Your task to perform on an android device: Is it going to rain today? Image 0: 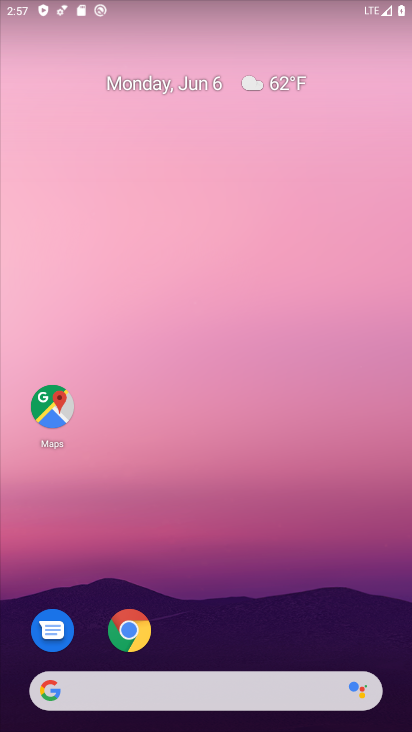
Step 0: press home button
Your task to perform on an android device: Is it going to rain today? Image 1: 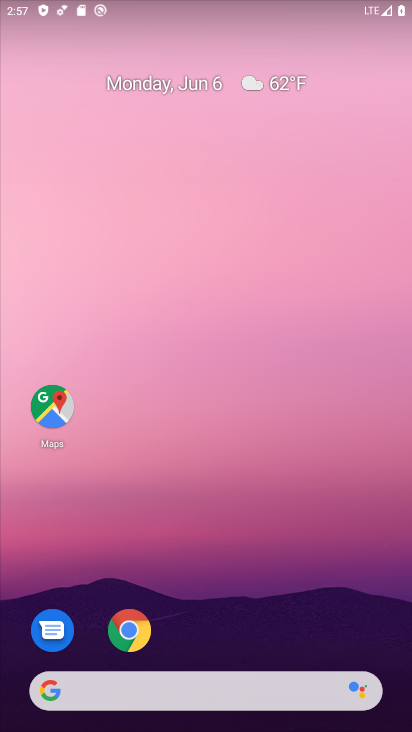
Step 1: click (137, 628)
Your task to perform on an android device: Is it going to rain today? Image 2: 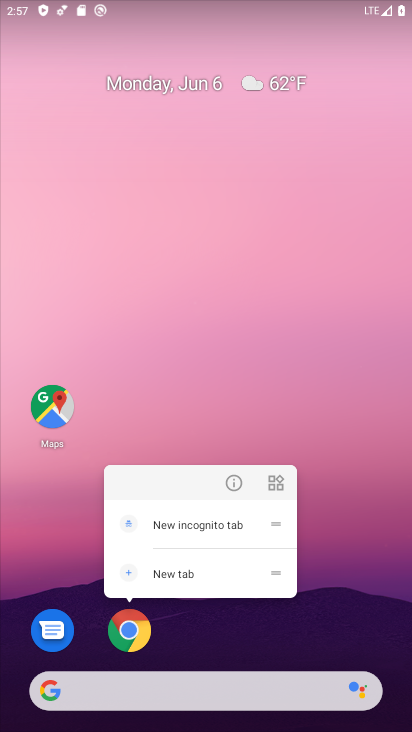
Step 2: click (116, 620)
Your task to perform on an android device: Is it going to rain today? Image 3: 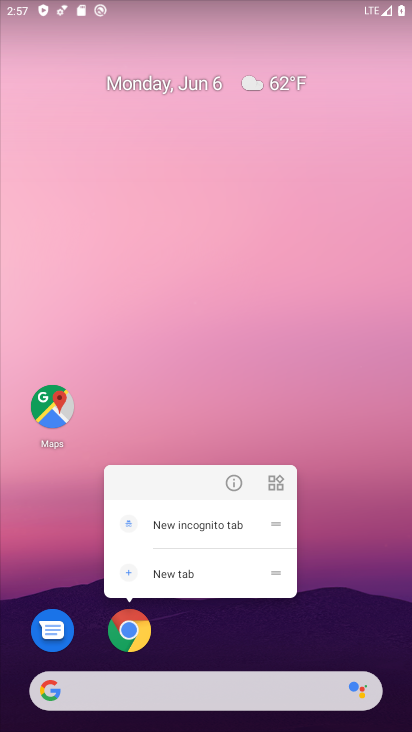
Step 3: click (137, 633)
Your task to perform on an android device: Is it going to rain today? Image 4: 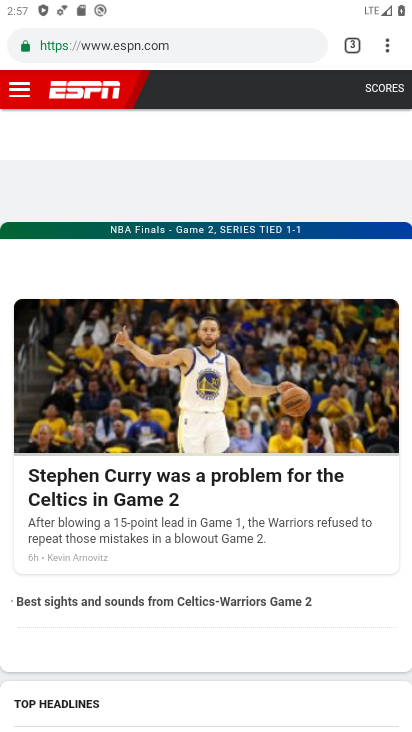
Step 4: click (142, 48)
Your task to perform on an android device: Is it going to rain today? Image 5: 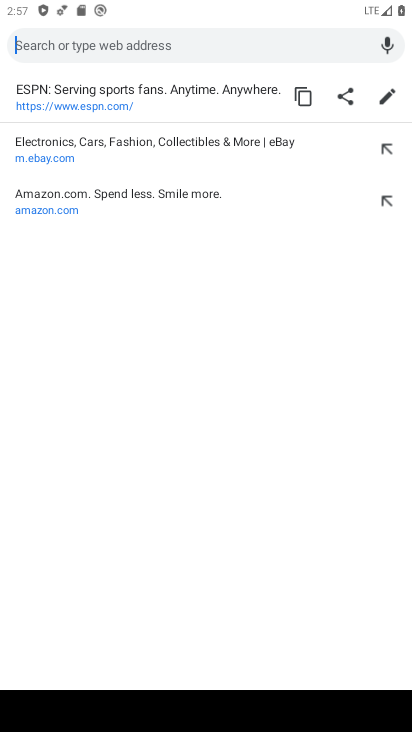
Step 5: type "Is it going to rain today?"
Your task to perform on an android device: Is it going to rain today? Image 6: 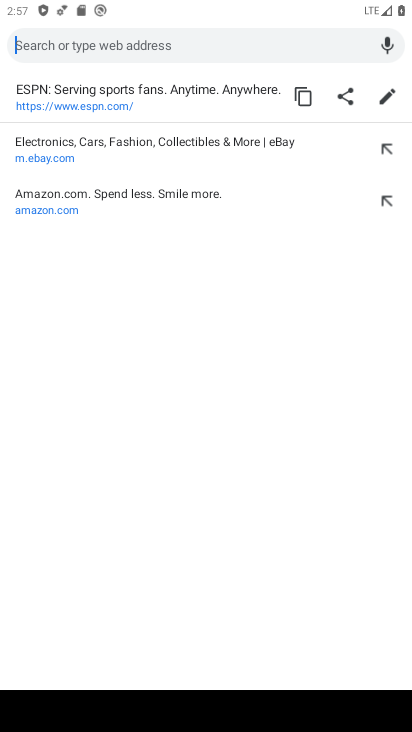
Step 6: click (166, 97)
Your task to perform on an android device: Is it going to rain today? Image 7: 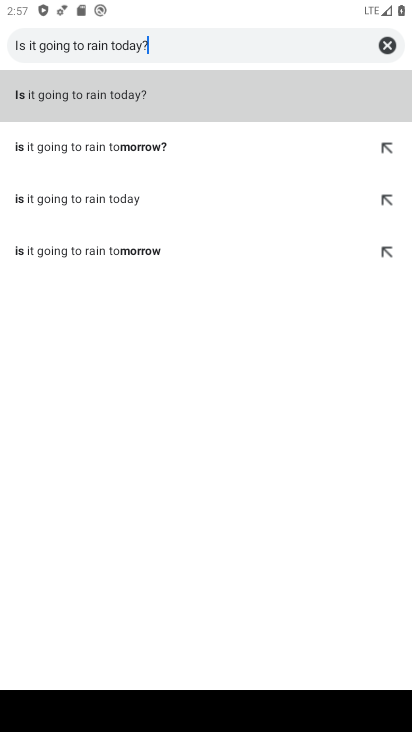
Step 7: type ""
Your task to perform on an android device: Is it going to rain today? Image 8: 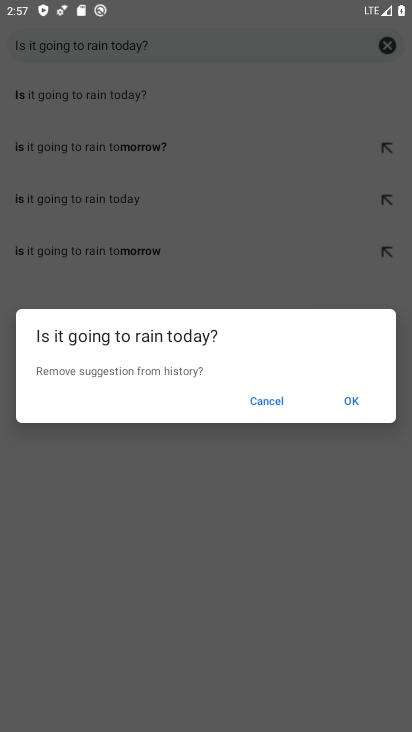
Step 8: click (258, 393)
Your task to perform on an android device: Is it going to rain today? Image 9: 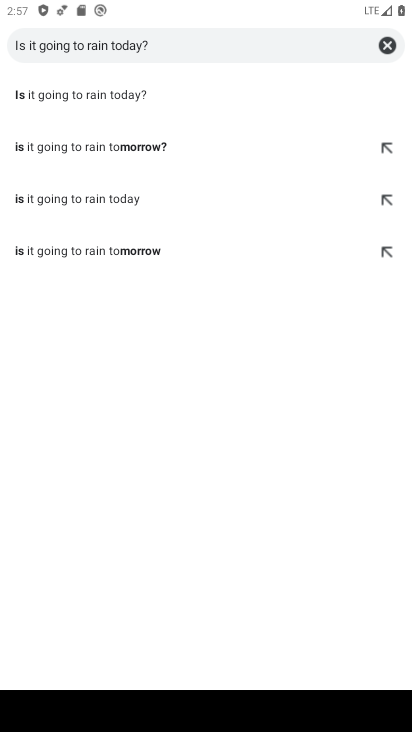
Step 9: click (127, 102)
Your task to perform on an android device: Is it going to rain today? Image 10: 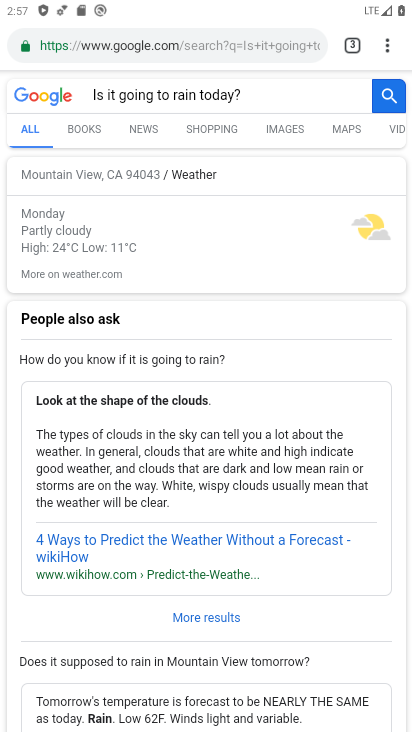
Step 10: task complete